Your task to perform on an android device: Go to network settings Image 0: 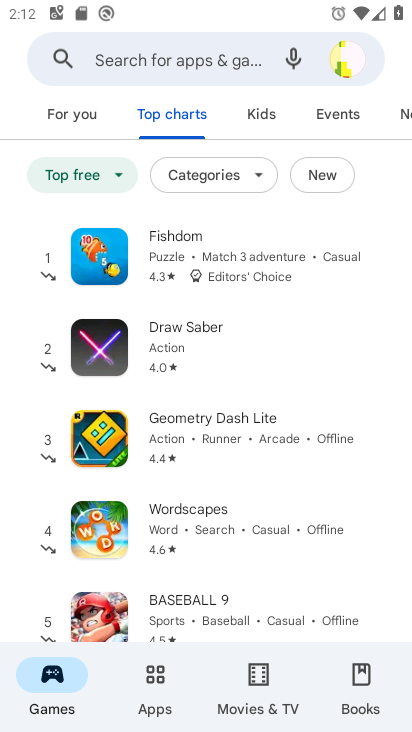
Step 0: press home button
Your task to perform on an android device: Go to network settings Image 1: 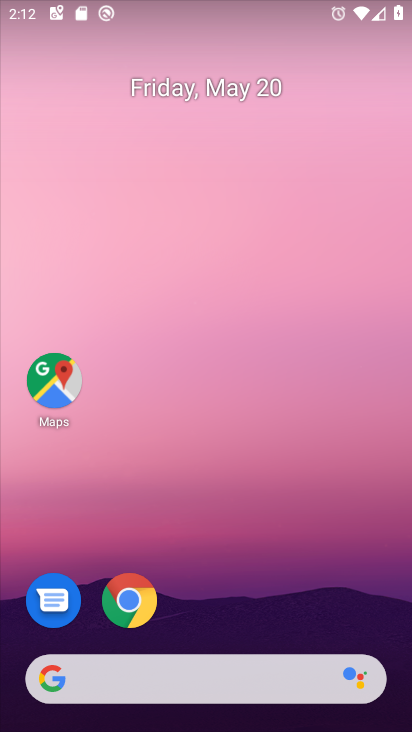
Step 1: drag from (216, 587) to (279, 210)
Your task to perform on an android device: Go to network settings Image 2: 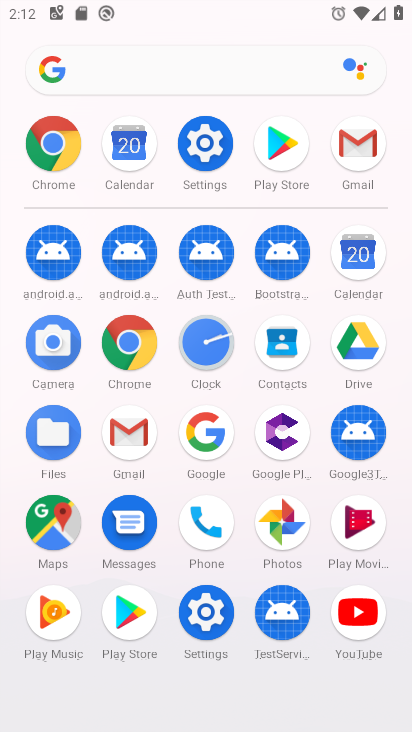
Step 2: click (200, 601)
Your task to perform on an android device: Go to network settings Image 3: 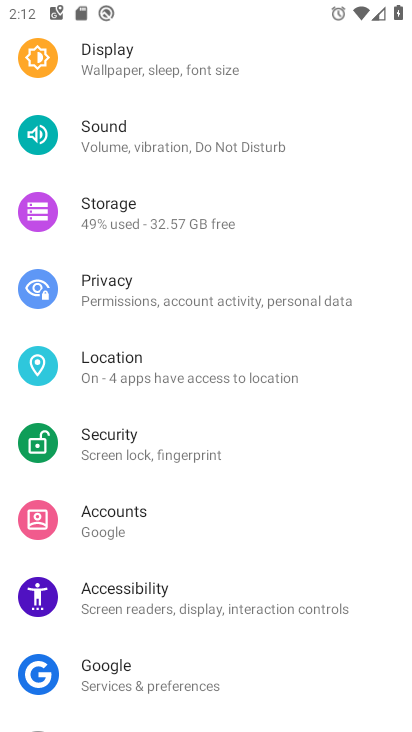
Step 3: drag from (249, 297) to (229, 626)
Your task to perform on an android device: Go to network settings Image 4: 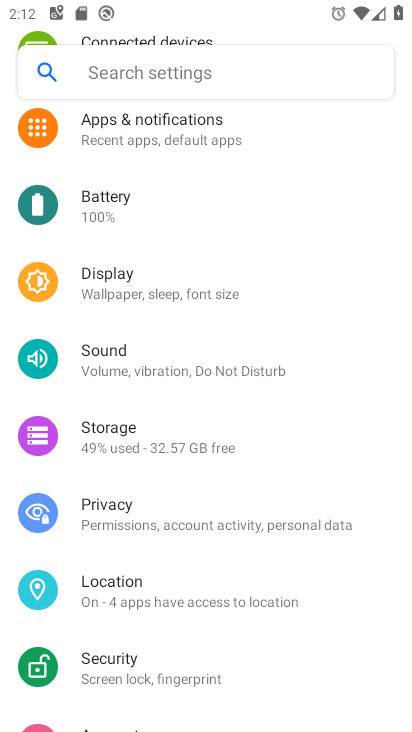
Step 4: drag from (223, 224) to (216, 531)
Your task to perform on an android device: Go to network settings Image 5: 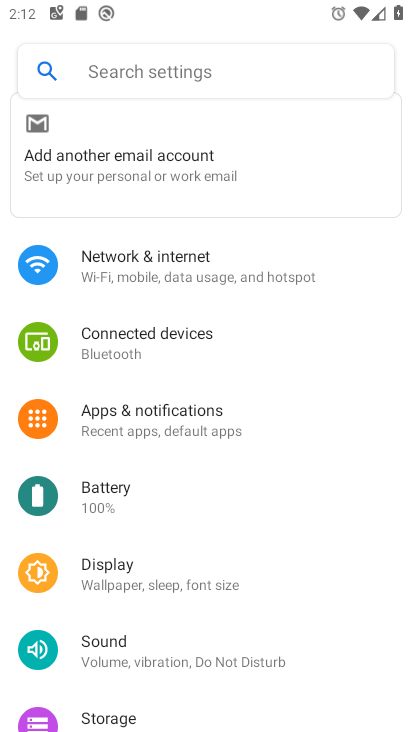
Step 5: click (179, 274)
Your task to perform on an android device: Go to network settings Image 6: 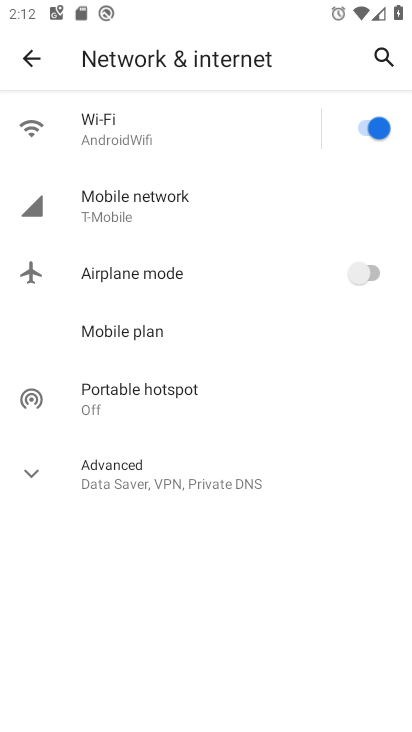
Step 6: task complete